Your task to perform on an android device: Open Chrome and go to the settings page Image 0: 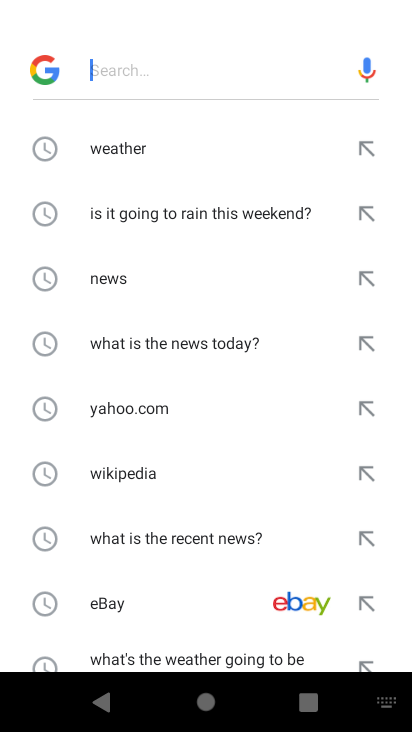
Step 0: press home button
Your task to perform on an android device: Open Chrome and go to the settings page Image 1: 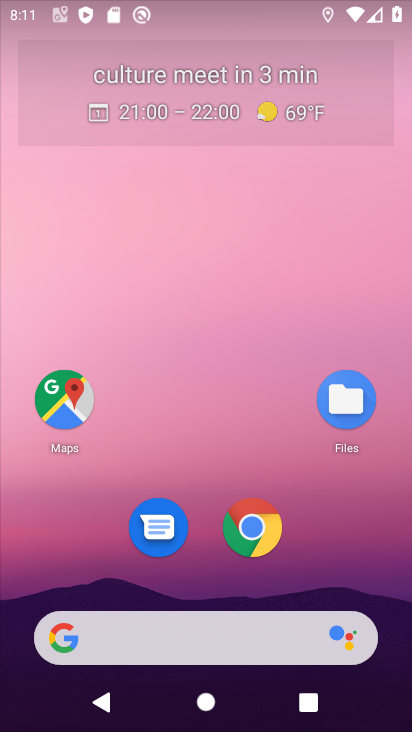
Step 1: click (265, 527)
Your task to perform on an android device: Open Chrome and go to the settings page Image 2: 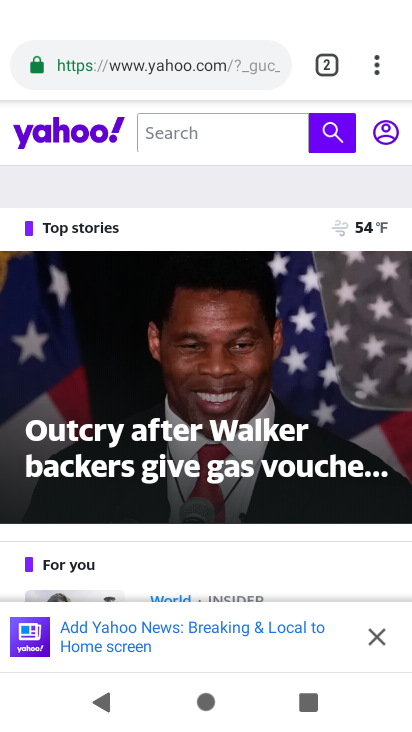
Step 2: click (370, 66)
Your task to perform on an android device: Open Chrome and go to the settings page Image 3: 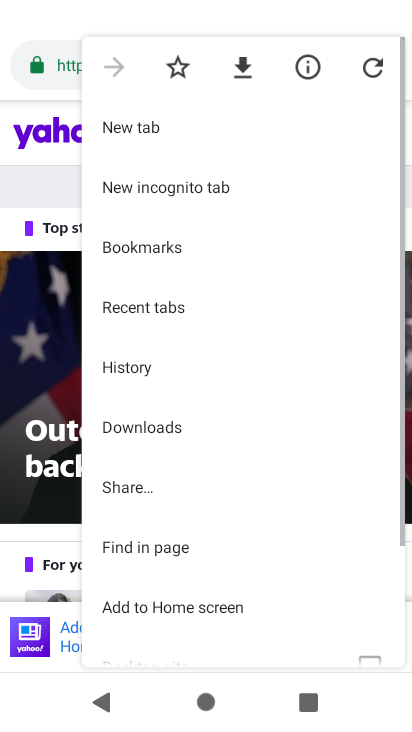
Step 3: drag from (195, 553) to (201, 176)
Your task to perform on an android device: Open Chrome and go to the settings page Image 4: 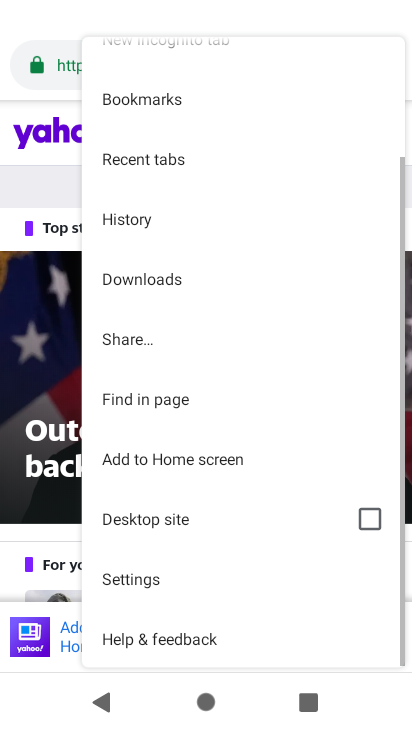
Step 4: click (162, 580)
Your task to perform on an android device: Open Chrome and go to the settings page Image 5: 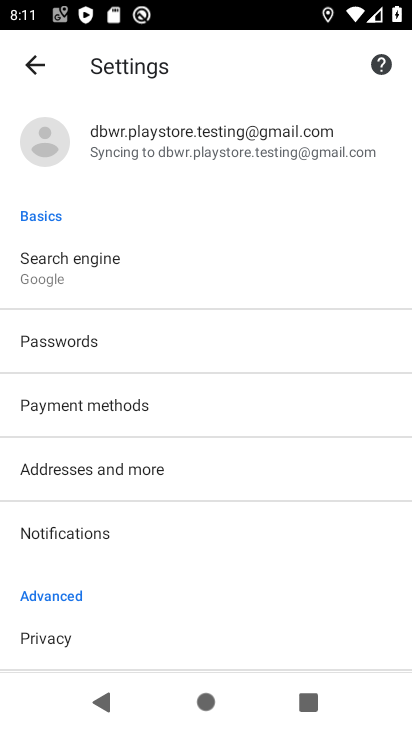
Step 5: task complete